Your task to perform on an android device: Open settings Image 0: 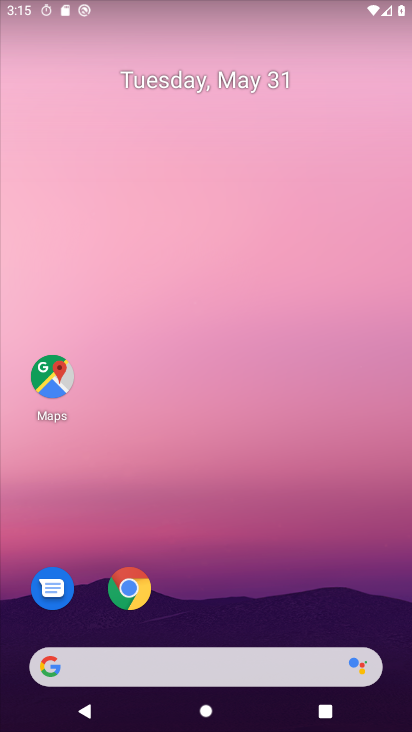
Step 0: drag from (278, 628) to (309, 46)
Your task to perform on an android device: Open settings Image 1: 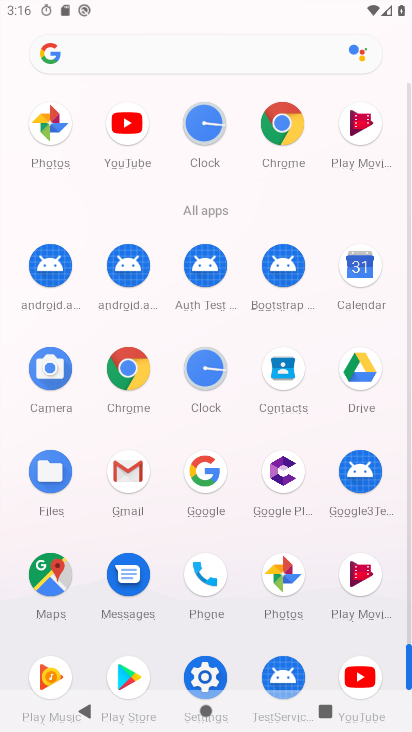
Step 1: drag from (263, 519) to (308, 132)
Your task to perform on an android device: Open settings Image 2: 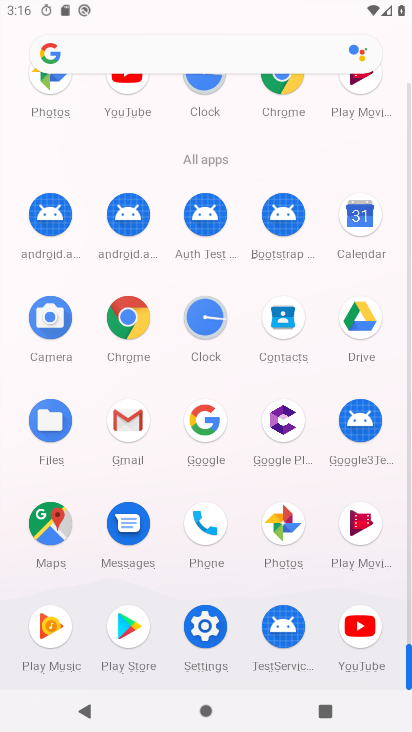
Step 2: click (201, 640)
Your task to perform on an android device: Open settings Image 3: 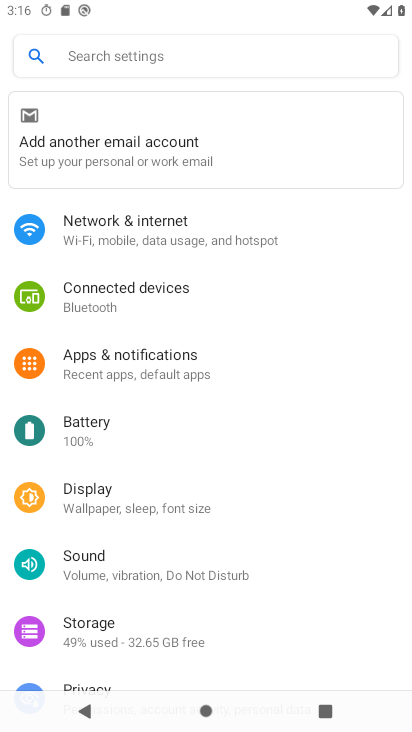
Step 3: task complete